Your task to perform on an android device: toggle javascript in the chrome app Image 0: 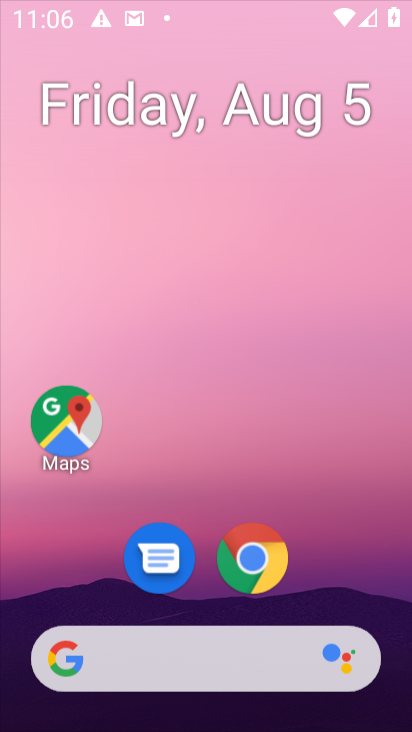
Step 0: press home button
Your task to perform on an android device: toggle javascript in the chrome app Image 1: 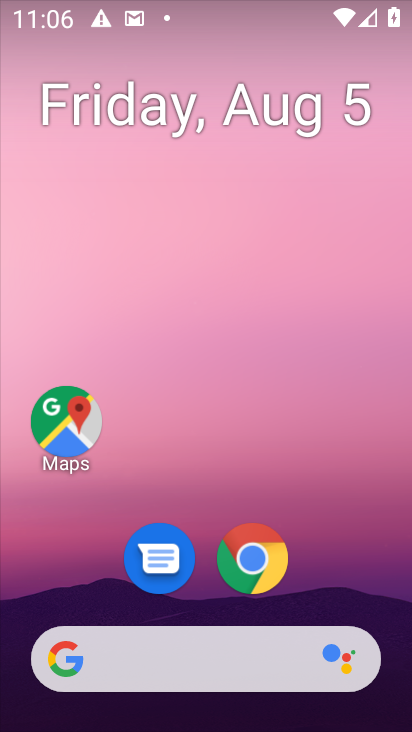
Step 1: drag from (354, 588) to (372, 242)
Your task to perform on an android device: toggle javascript in the chrome app Image 2: 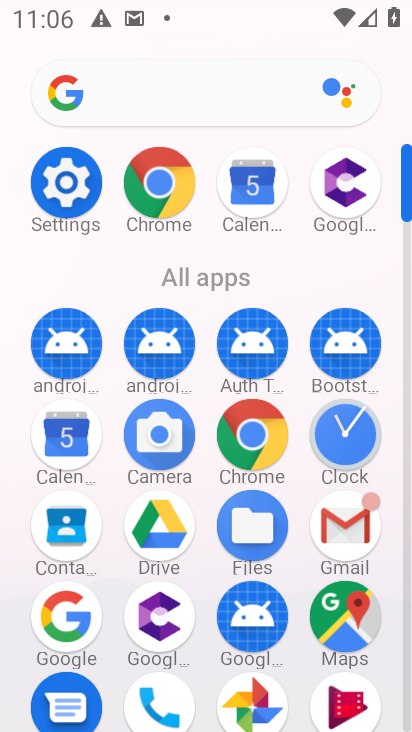
Step 2: click (258, 425)
Your task to perform on an android device: toggle javascript in the chrome app Image 3: 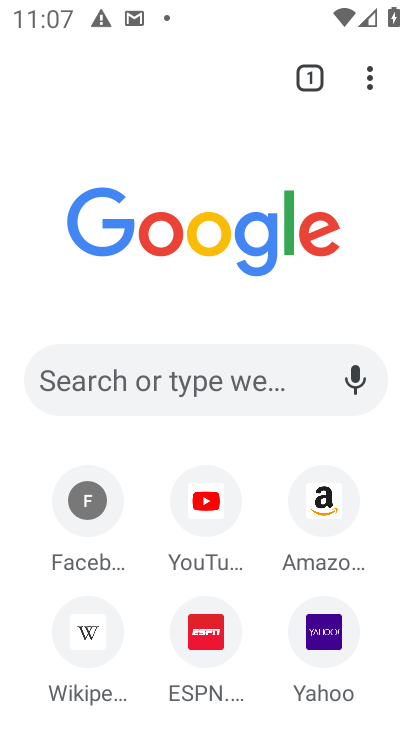
Step 3: click (369, 75)
Your task to perform on an android device: toggle javascript in the chrome app Image 4: 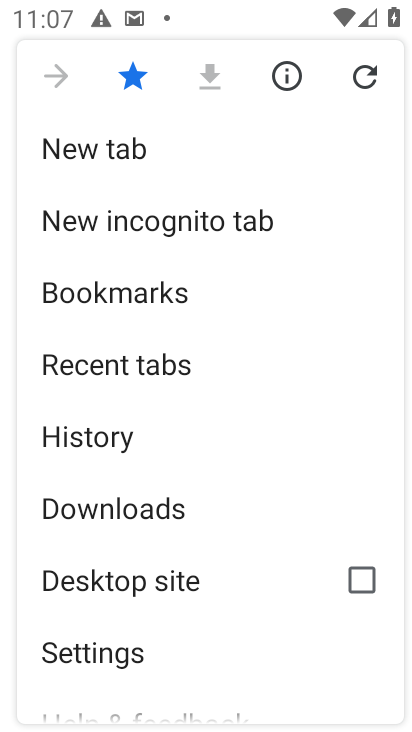
Step 4: drag from (302, 488) to (297, 435)
Your task to perform on an android device: toggle javascript in the chrome app Image 5: 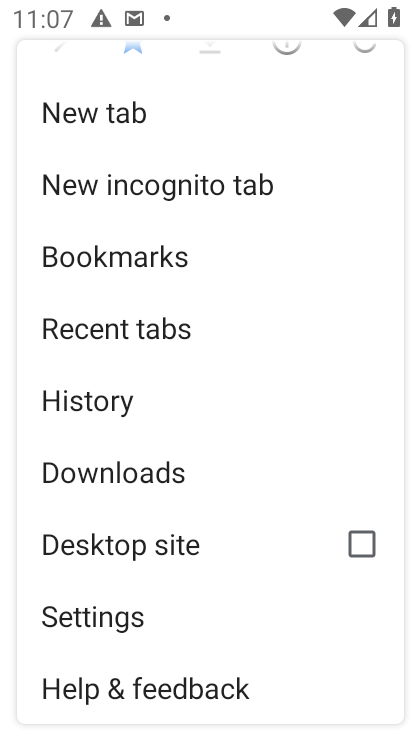
Step 5: click (274, 614)
Your task to perform on an android device: toggle javascript in the chrome app Image 6: 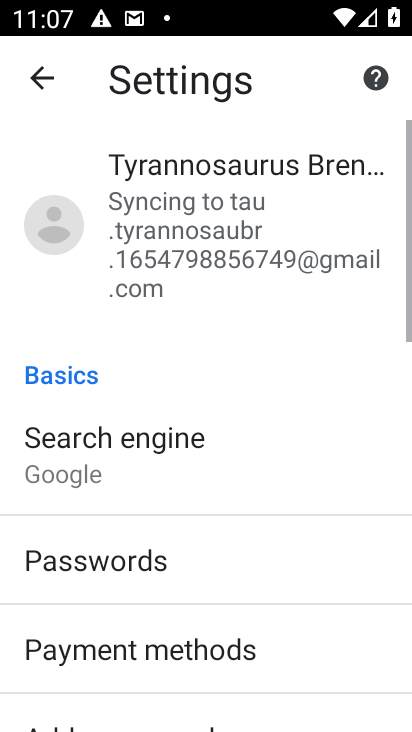
Step 6: drag from (278, 609) to (287, 559)
Your task to perform on an android device: toggle javascript in the chrome app Image 7: 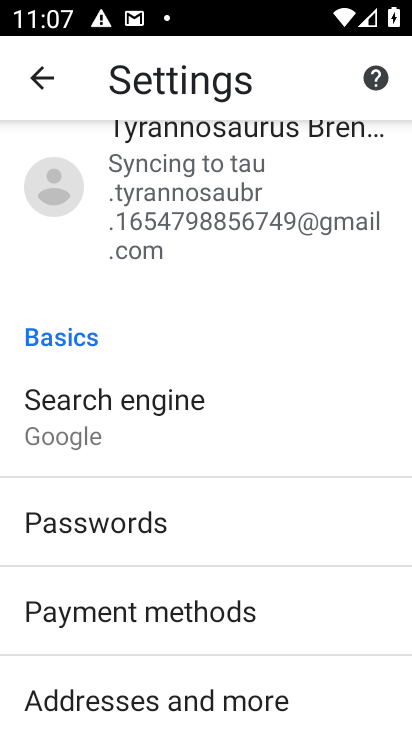
Step 7: drag from (296, 655) to (308, 569)
Your task to perform on an android device: toggle javascript in the chrome app Image 8: 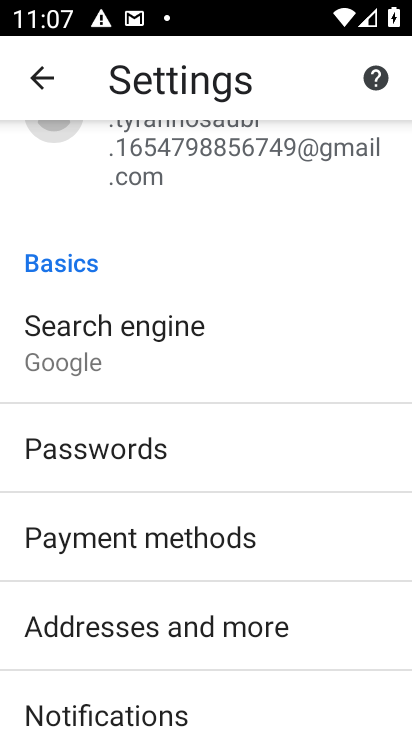
Step 8: drag from (315, 589) to (315, 484)
Your task to perform on an android device: toggle javascript in the chrome app Image 9: 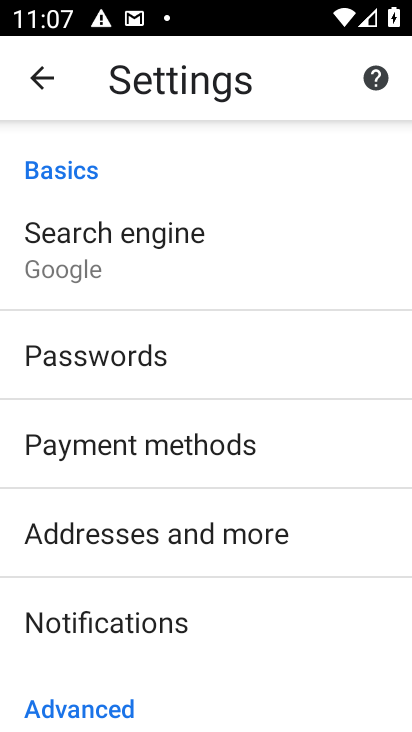
Step 9: drag from (326, 570) to (339, 490)
Your task to perform on an android device: toggle javascript in the chrome app Image 10: 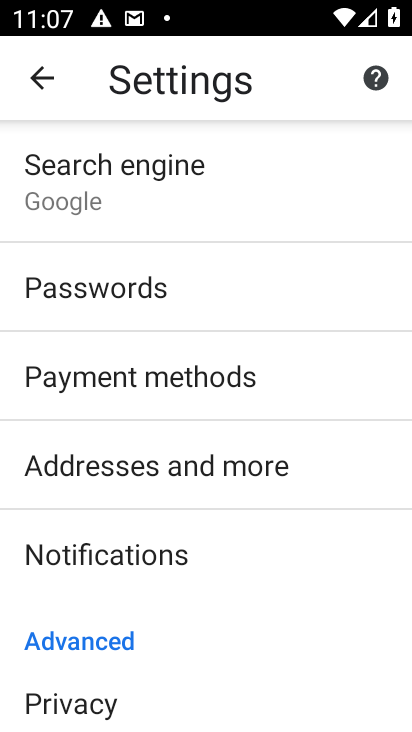
Step 10: drag from (321, 559) to (328, 476)
Your task to perform on an android device: toggle javascript in the chrome app Image 11: 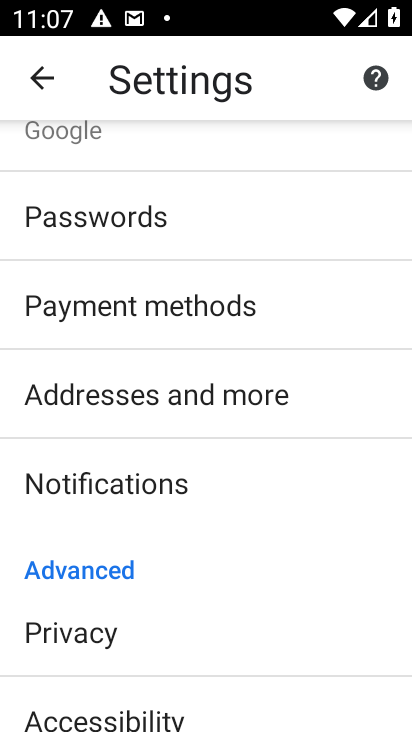
Step 11: drag from (325, 568) to (334, 480)
Your task to perform on an android device: toggle javascript in the chrome app Image 12: 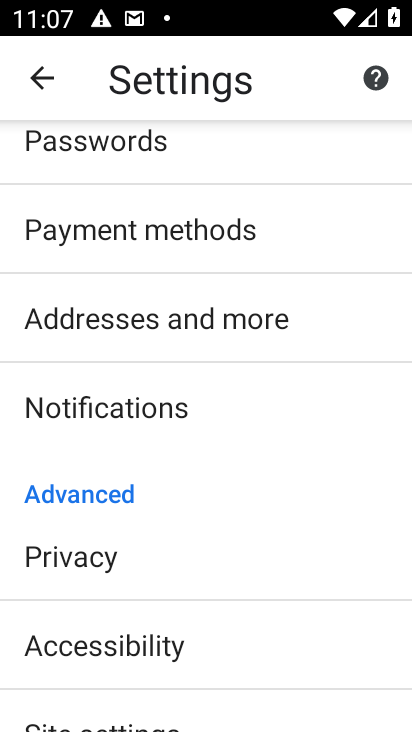
Step 12: drag from (322, 563) to (318, 441)
Your task to perform on an android device: toggle javascript in the chrome app Image 13: 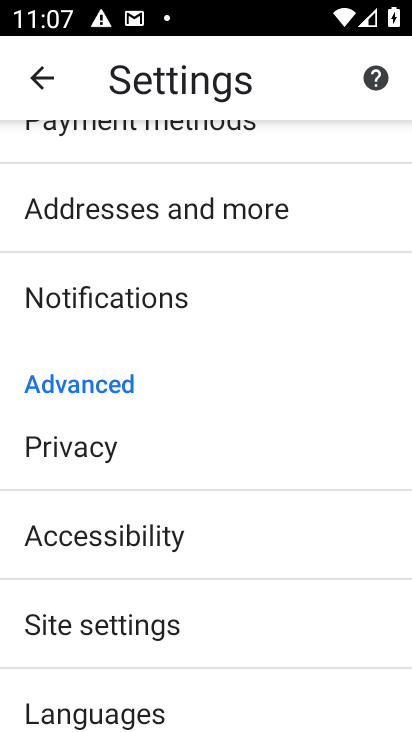
Step 13: drag from (318, 557) to (326, 466)
Your task to perform on an android device: toggle javascript in the chrome app Image 14: 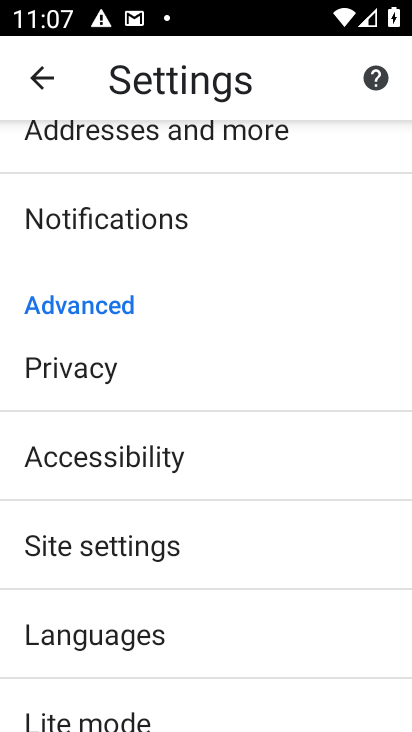
Step 14: click (318, 535)
Your task to perform on an android device: toggle javascript in the chrome app Image 15: 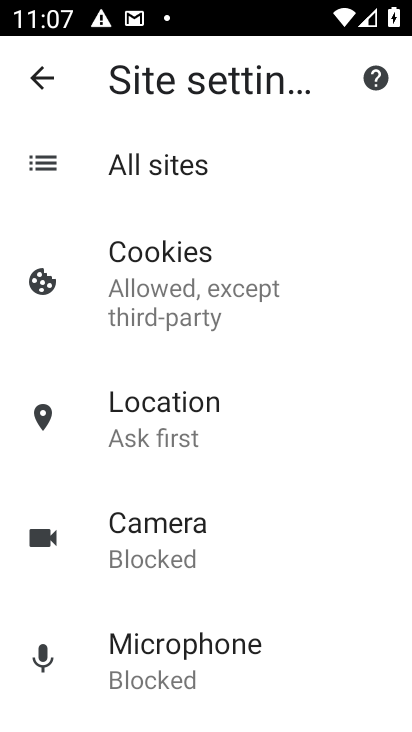
Step 15: drag from (330, 573) to (329, 513)
Your task to perform on an android device: toggle javascript in the chrome app Image 16: 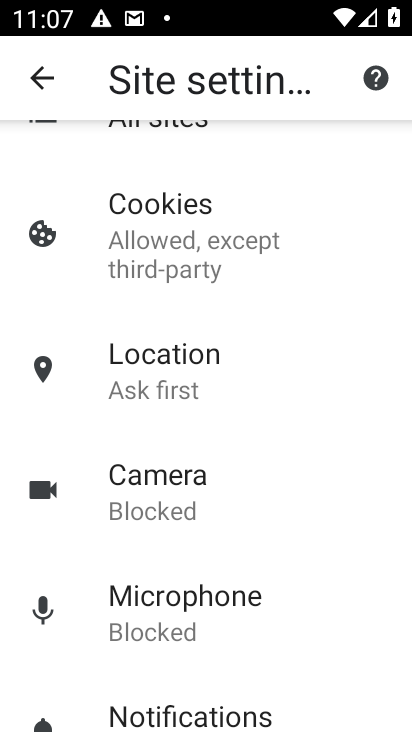
Step 16: drag from (332, 649) to (337, 514)
Your task to perform on an android device: toggle javascript in the chrome app Image 17: 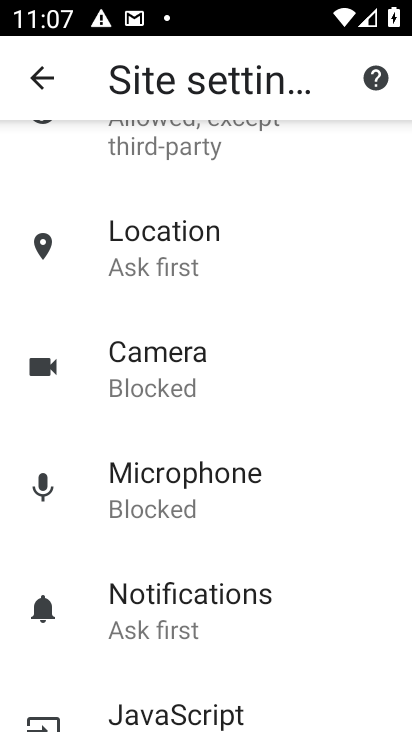
Step 17: drag from (336, 614) to (336, 526)
Your task to perform on an android device: toggle javascript in the chrome app Image 18: 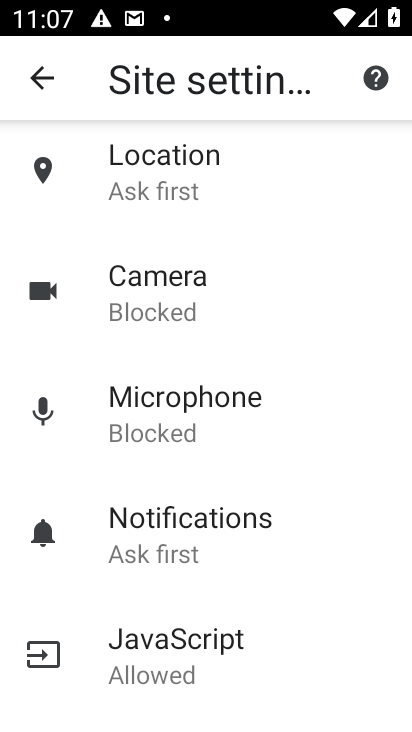
Step 18: drag from (330, 641) to (329, 547)
Your task to perform on an android device: toggle javascript in the chrome app Image 19: 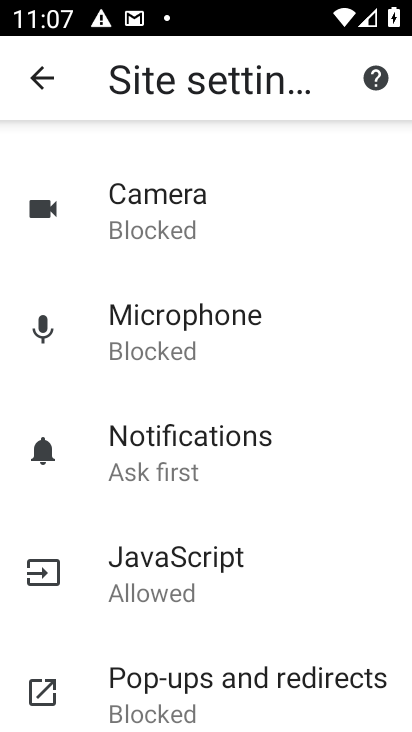
Step 19: click (329, 546)
Your task to perform on an android device: toggle javascript in the chrome app Image 20: 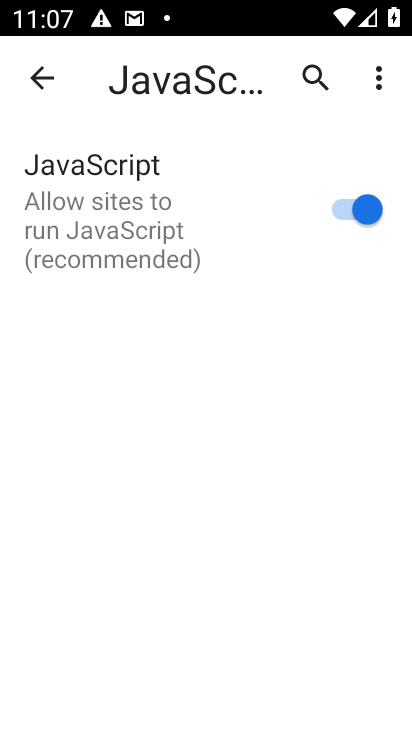
Step 20: click (373, 199)
Your task to perform on an android device: toggle javascript in the chrome app Image 21: 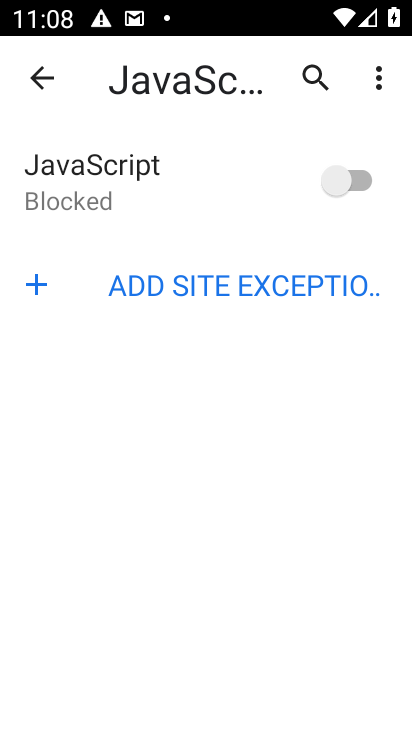
Step 21: task complete